Your task to perform on an android device: Go to calendar. Show me events next week Image 0: 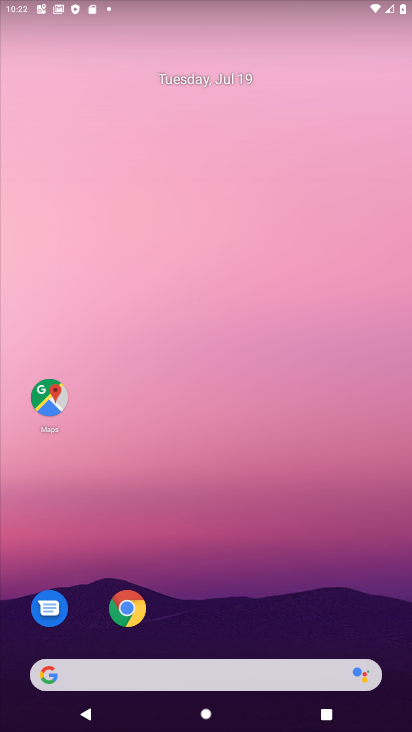
Step 0: drag from (323, 596) to (259, 117)
Your task to perform on an android device: Go to calendar. Show me events next week Image 1: 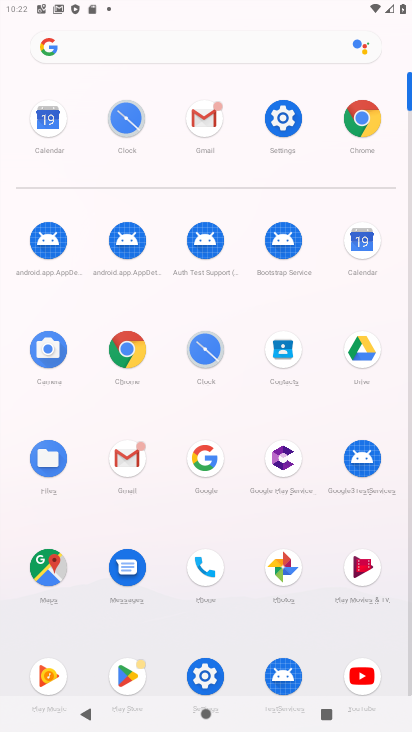
Step 1: click (354, 244)
Your task to perform on an android device: Go to calendar. Show me events next week Image 2: 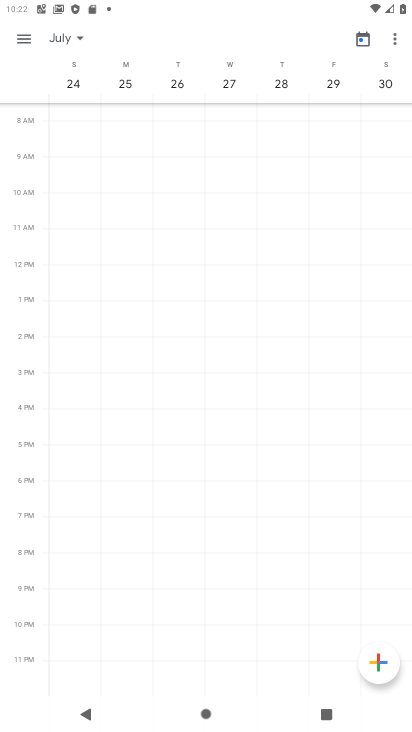
Step 2: task complete